Your task to perform on an android device: open app "Grab" Image 0: 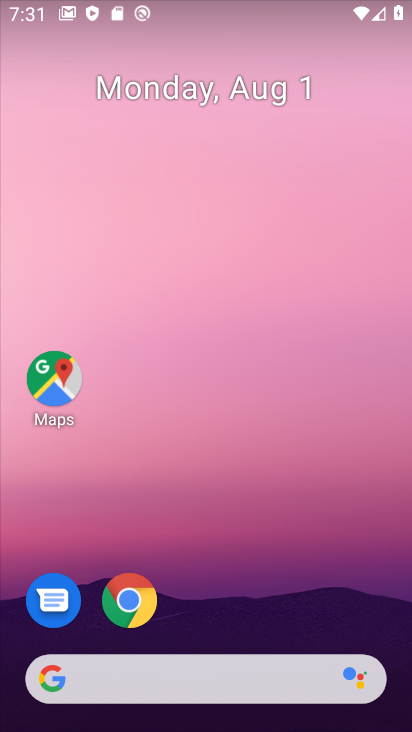
Step 0: drag from (201, 588) to (183, 269)
Your task to perform on an android device: open app "Grab" Image 1: 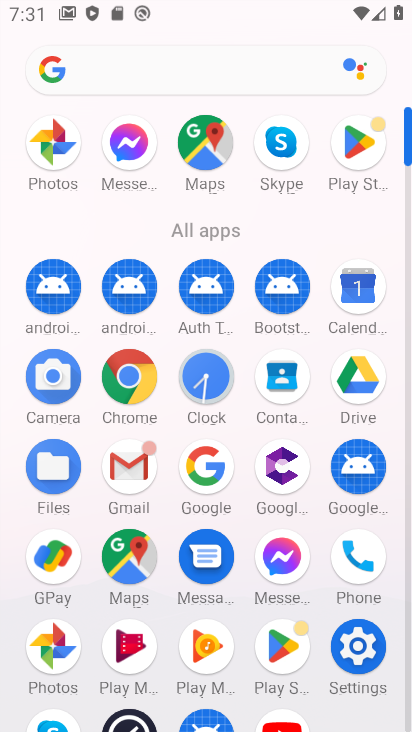
Step 1: click (367, 148)
Your task to perform on an android device: open app "Grab" Image 2: 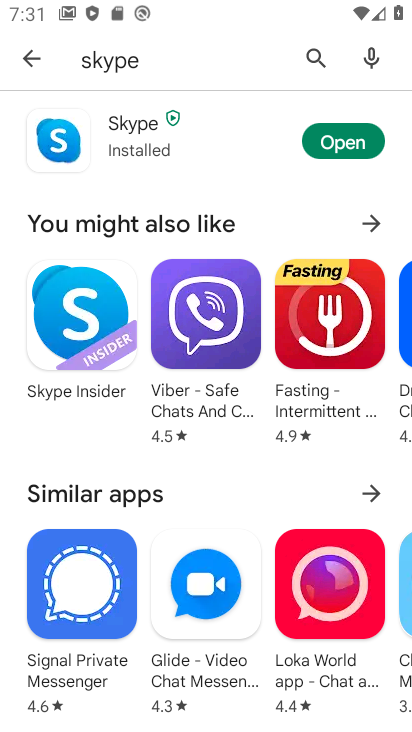
Step 2: click (31, 54)
Your task to perform on an android device: open app "Grab" Image 3: 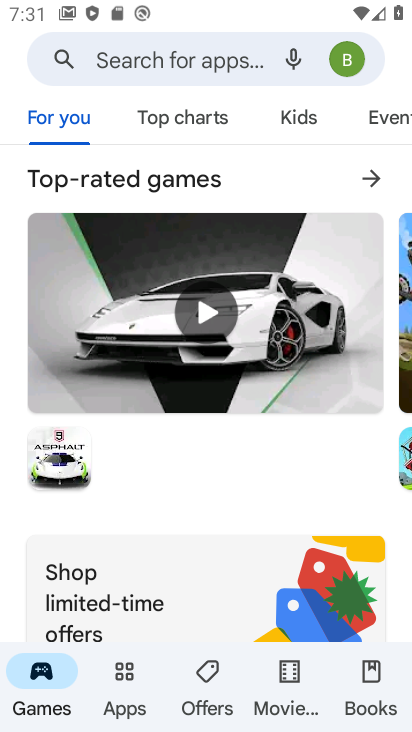
Step 3: click (160, 54)
Your task to perform on an android device: open app "Grab" Image 4: 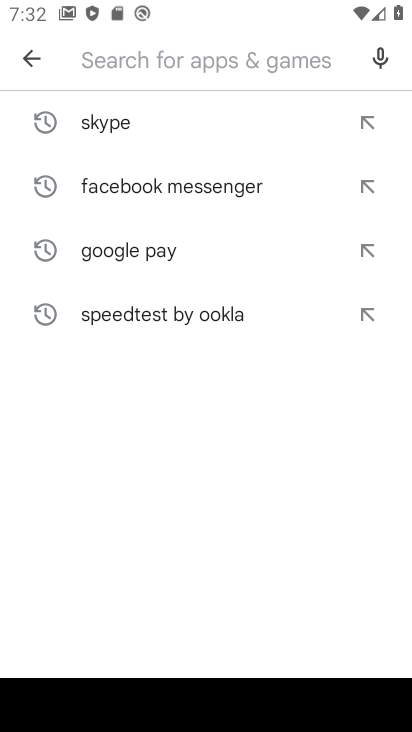
Step 4: type "grab"
Your task to perform on an android device: open app "Grab" Image 5: 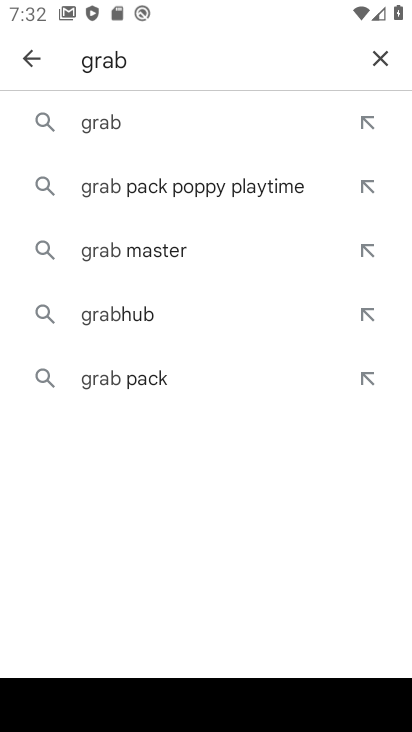
Step 5: click (112, 120)
Your task to perform on an android device: open app "Grab" Image 6: 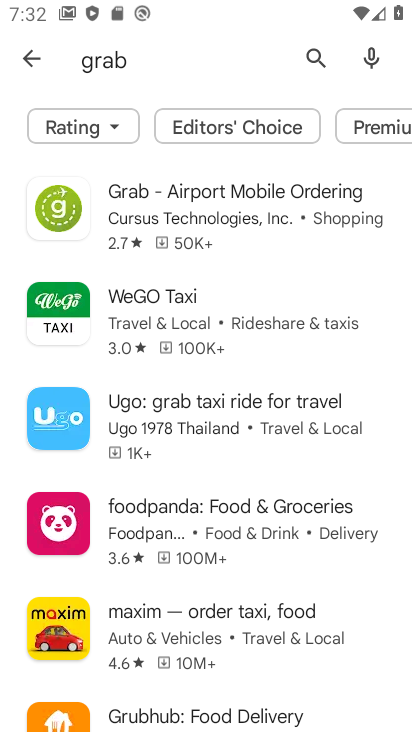
Step 6: click (157, 232)
Your task to perform on an android device: open app "Grab" Image 7: 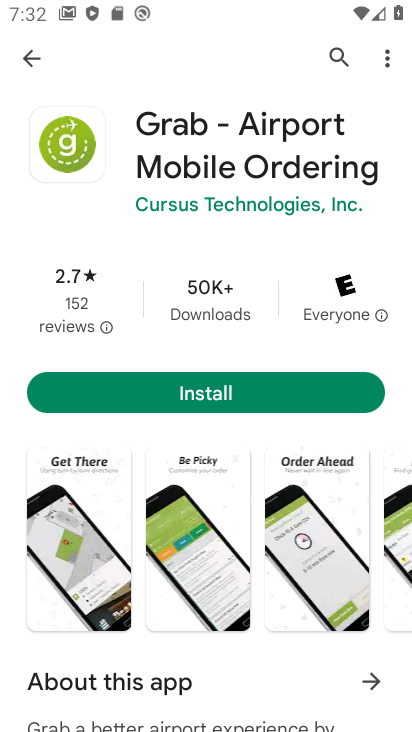
Step 7: click (212, 390)
Your task to perform on an android device: open app "Grab" Image 8: 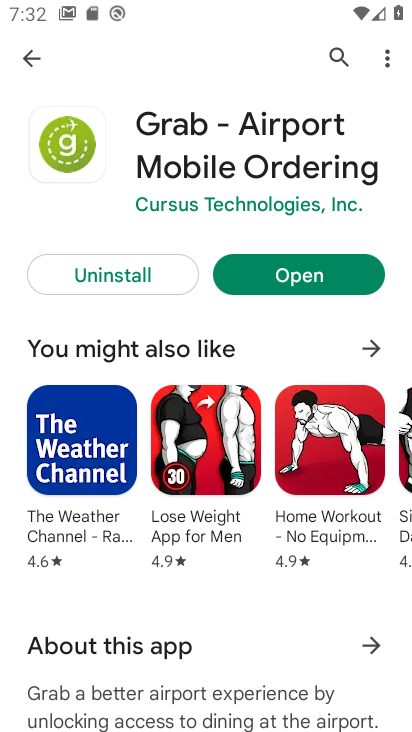
Step 8: click (281, 270)
Your task to perform on an android device: open app "Grab" Image 9: 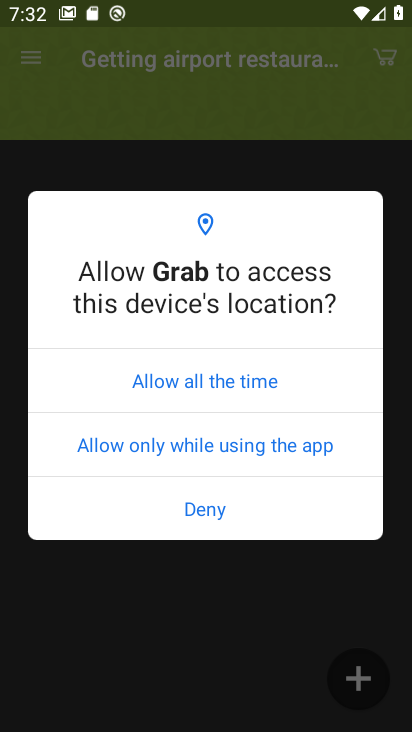
Step 9: task complete